Your task to perform on an android device: turn off wifi Image 0: 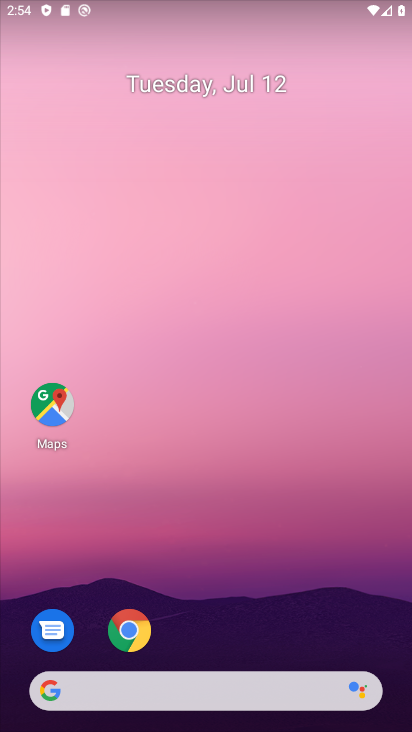
Step 0: drag from (227, 693) to (232, 7)
Your task to perform on an android device: turn off wifi Image 1: 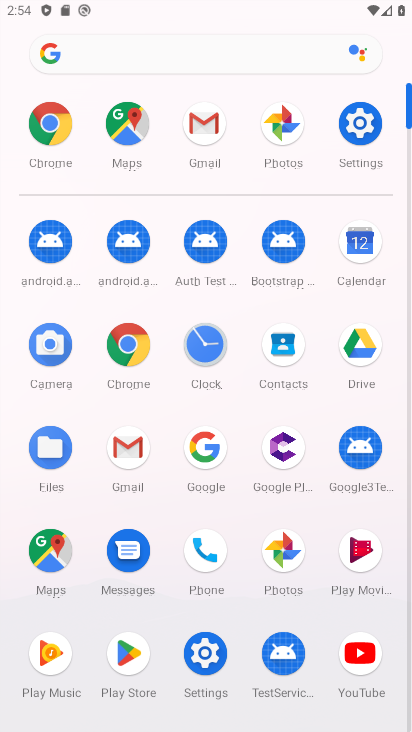
Step 1: click (360, 121)
Your task to perform on an android device: turn off wifi Image 2: 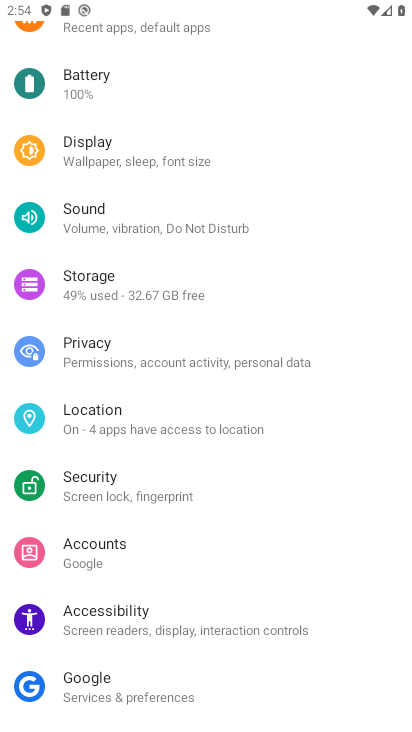
Step 2: drag from (112, 172) to (167, 652)
Your task to perform on an android device: turn off wifi Image 3: 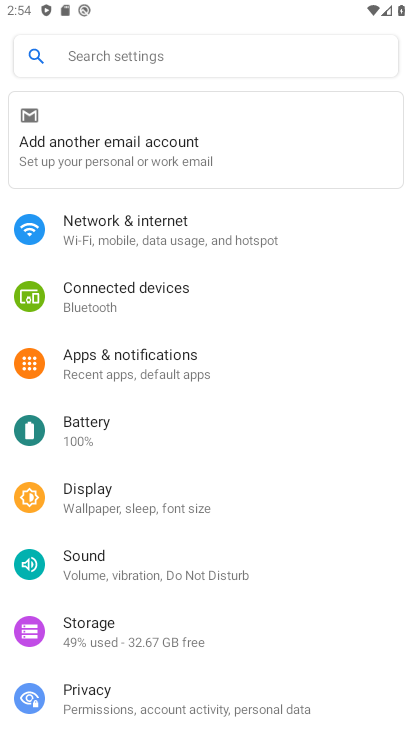
Step 3: click (144, 240)
Your task to perform on an android device: turn off wifi Image 4: 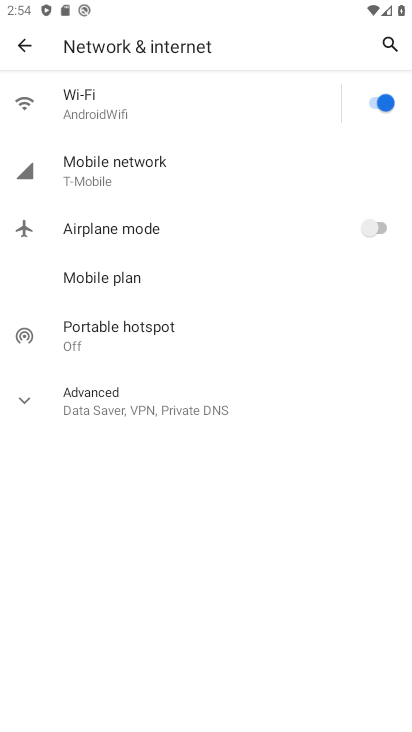
Step 4: click (382, 103)
Your task to perform on an android device: turn off wifi Image 5: 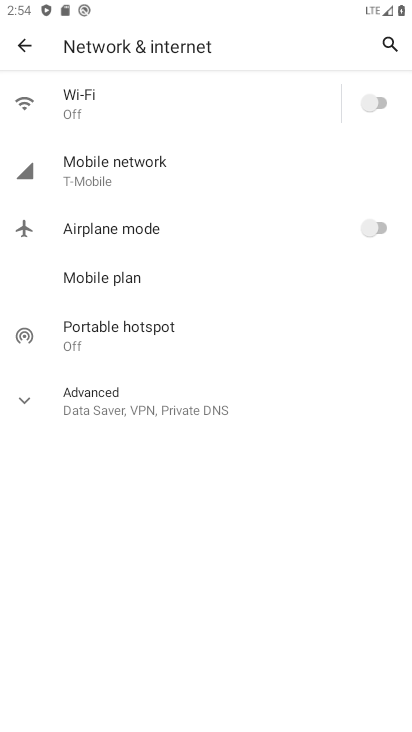
Step 5: task complete